Your task to perform on an android device: check storage Image 0: 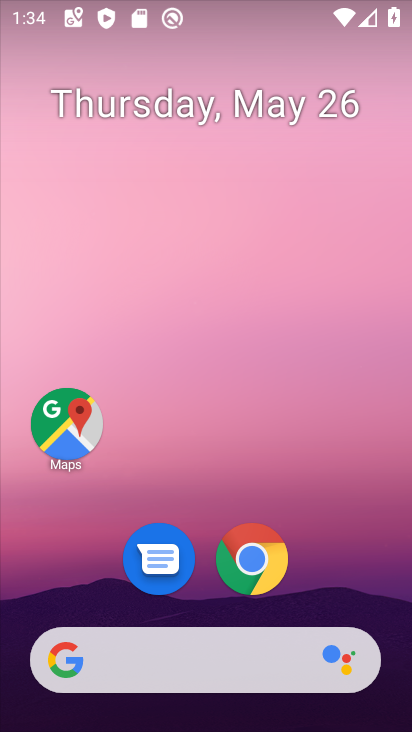
Step 0: press home button
Your task to perform on an android device: check storage Image 1: 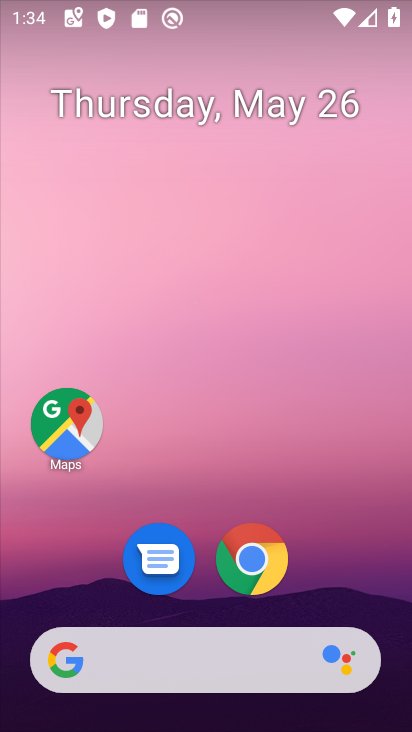
Step 1: drag from (202, 625) to (269, 106)
Your task to perform on an android device: check storage Image 2: 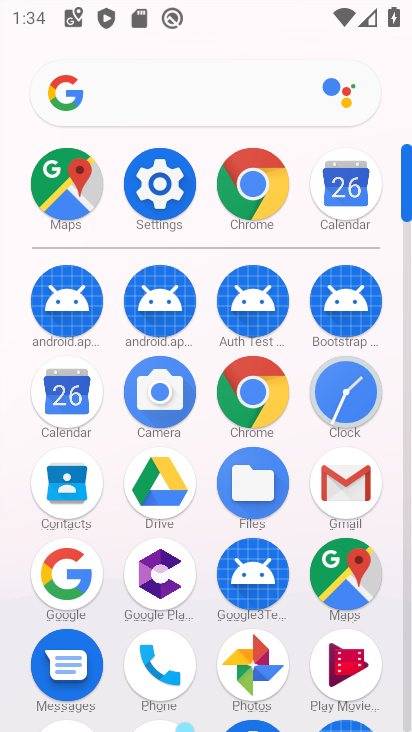
Step 2: click (169, 188)
Your task to perform on an android device: check storage Image 3: 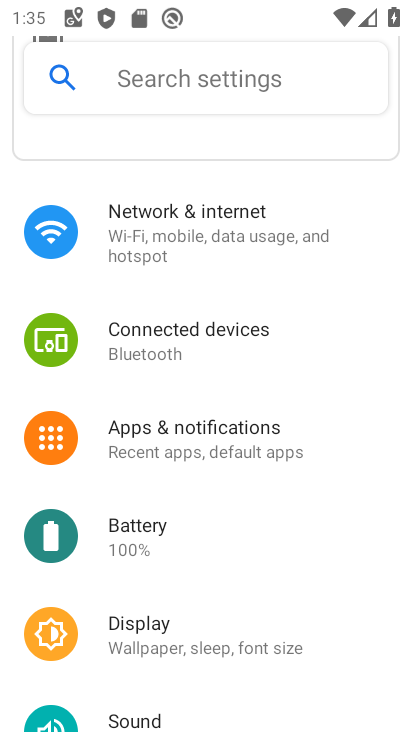
Step 3: drag from (269, 516) to (345, 155)
Your task to perform on an android device: check storage Image 4: 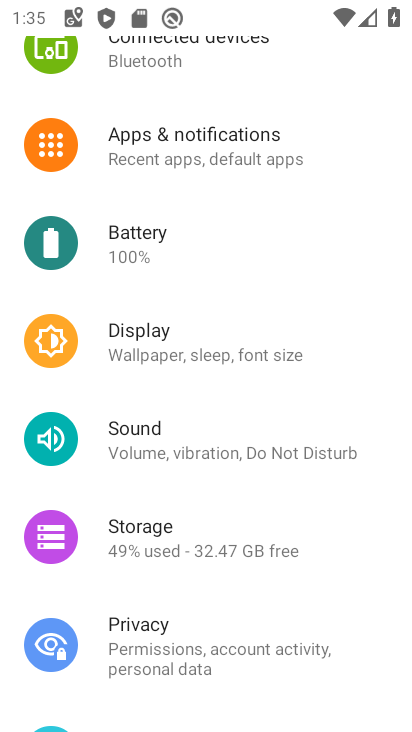
Step 4: click (176, 540)
Your task to perform on an android device: check storage Image 5: 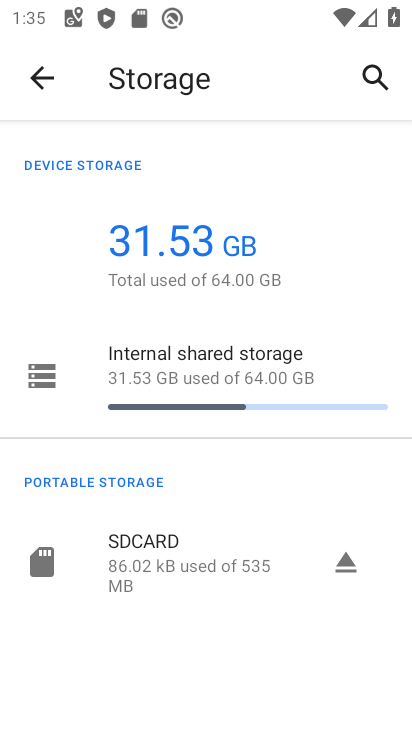
Step 5: task complete